Your task to perform on an android device: Go to network settings Image 0: 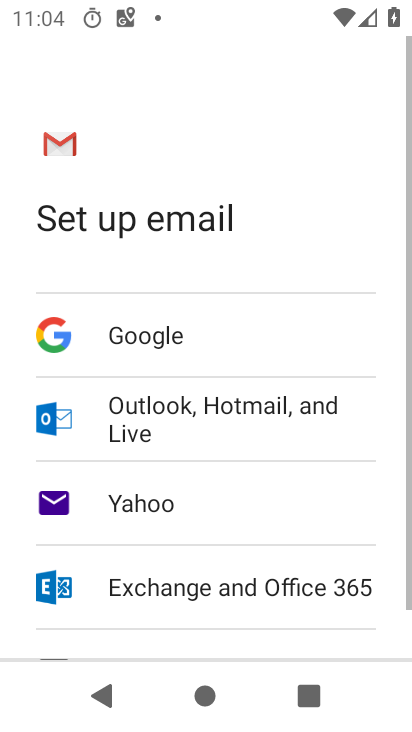
Step 0: press home button
Your task to perform on an android device: Go to network settings Image 1: 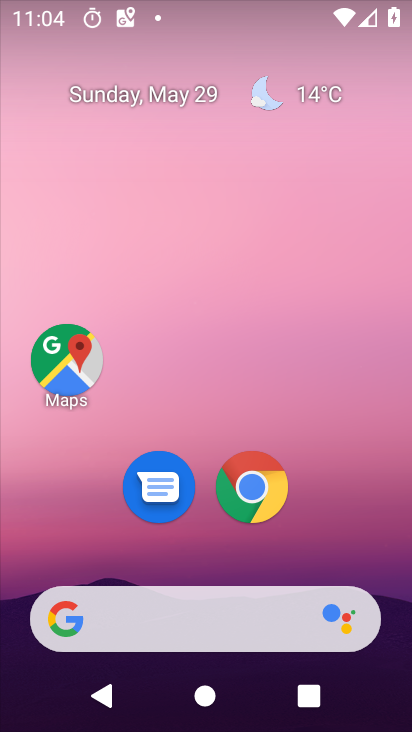
Step 1: drag from (381, 428) to (369, 89)
Your task to perform on an android device: Go to network settings Image 2: 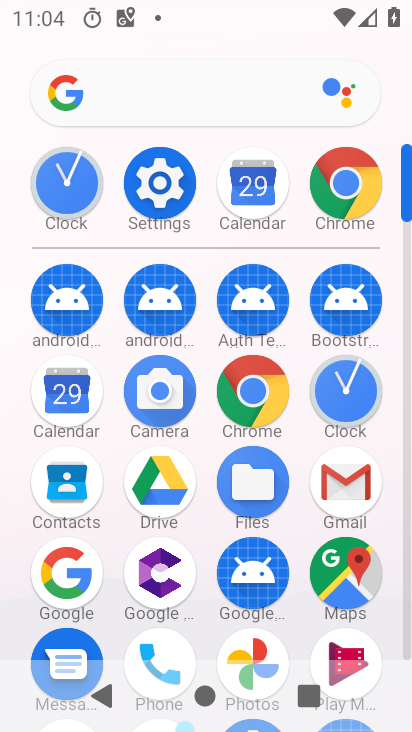
Step 2: click (165, 186)
Your task to perform on an android device: Go to network settings Image 3: 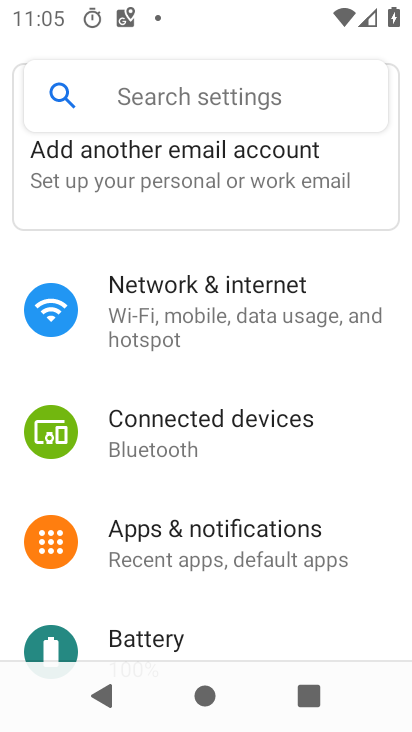
Step 3: click (206, 302)
Your task to perform on an android device: Go to network settings Image 4: 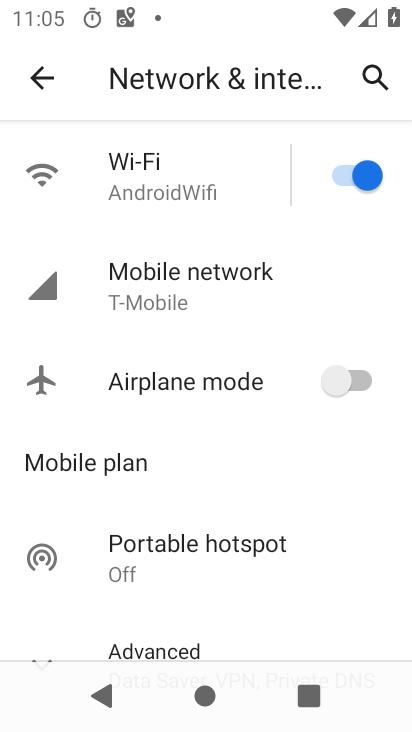
Step 4: click (154, 282)
Your task to perform on an android device: Go to network settings Image 5: 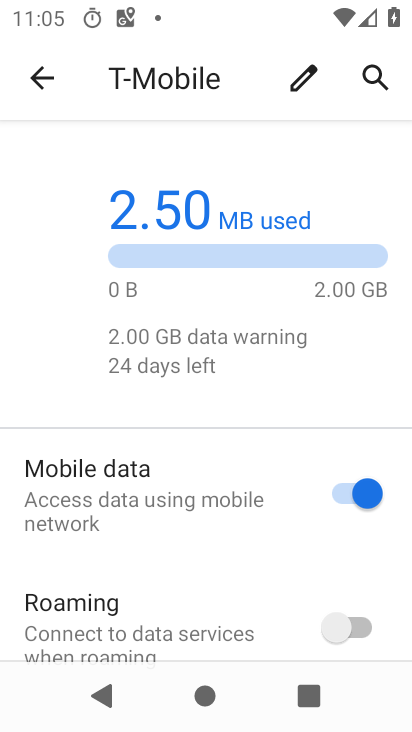
Step 5: task complete